Your task to perform on an android device: Go to ESPN.com Image 0: 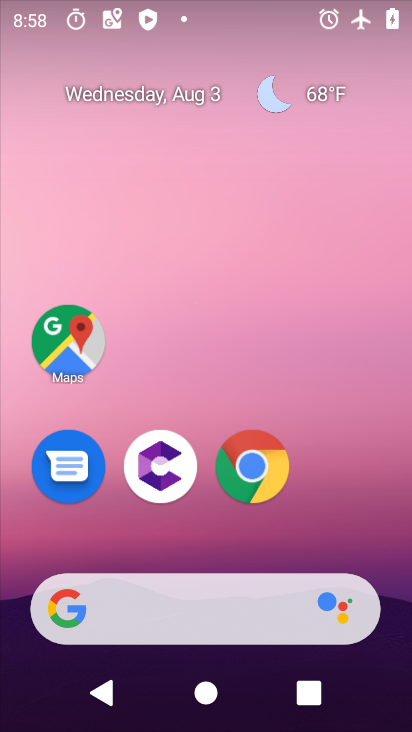
Step 0: drag from (329, 495) to (405, 97)
Your task to perform on an android device: Go to ESPN.com Image 1: 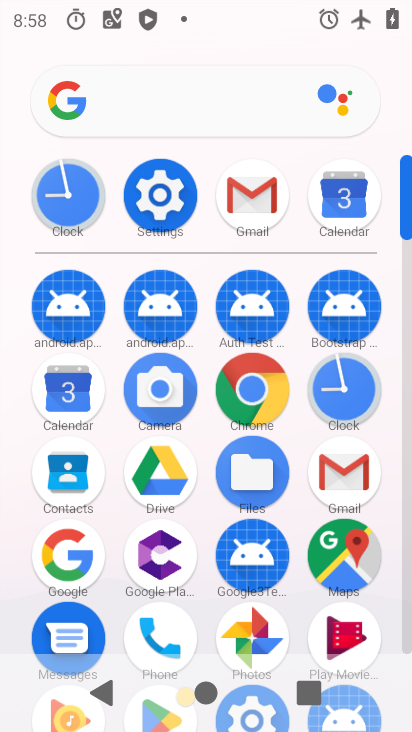
Step 1: click (255, 390)
Your task to perform on an android device: Go to ESPN.com Image 2: 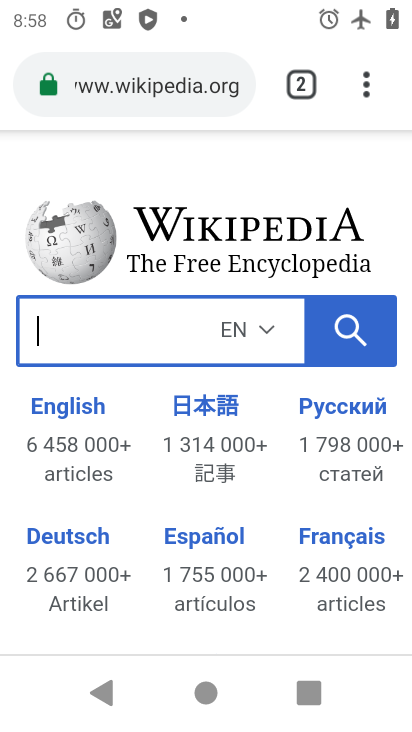
Step 2: click (200, 74)
Your task to perform on an android device: Go to ESPN.com Image 3: 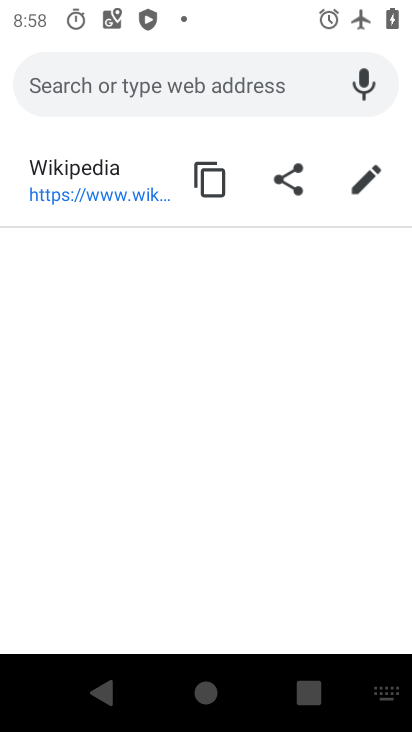
Step 3: type "espn.com"
Your task to perform on an android device: Go to ESPN.com Image 4: 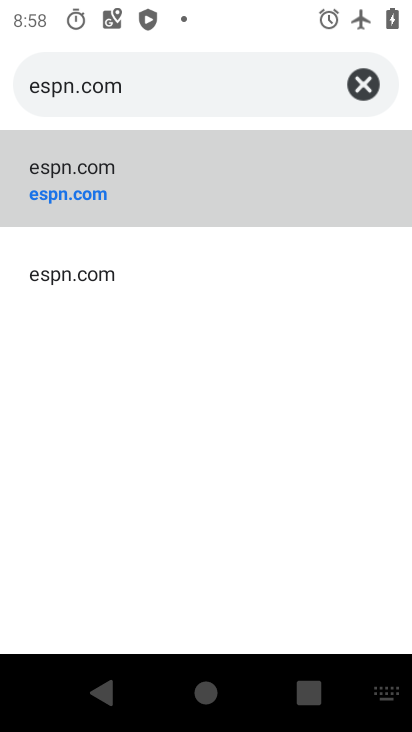
Step 4: click (71, 198)
Your task to perform on an android device: Go to ESPN.com Image 5: 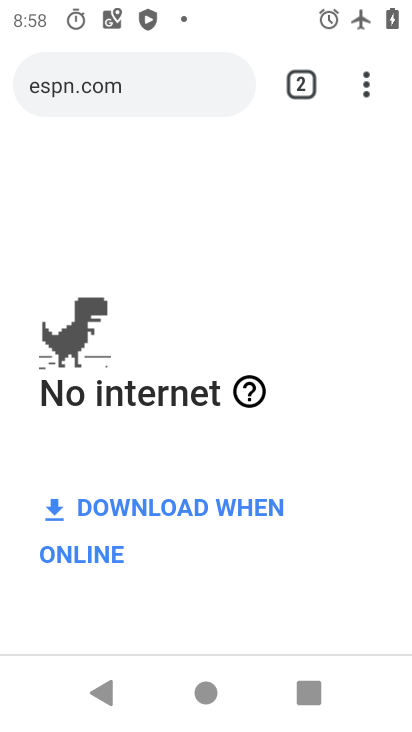
Step 5: task complete